Your task to perform on an android device: change notification settings in the gmail app Image 0: 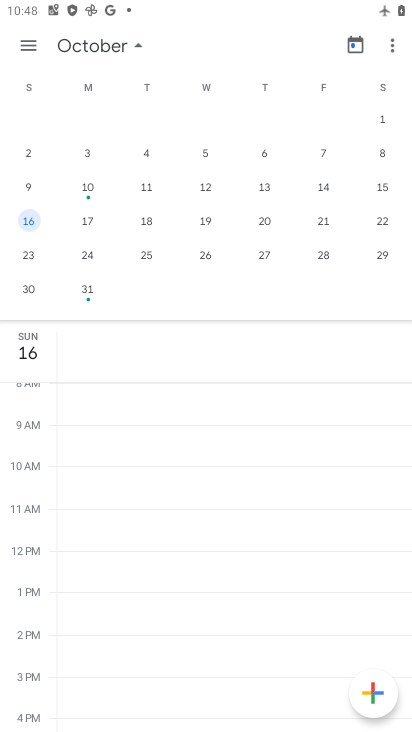
Step 0: press home button
Your task to perform on an android device: change notification settings in the gmail app Image 1: 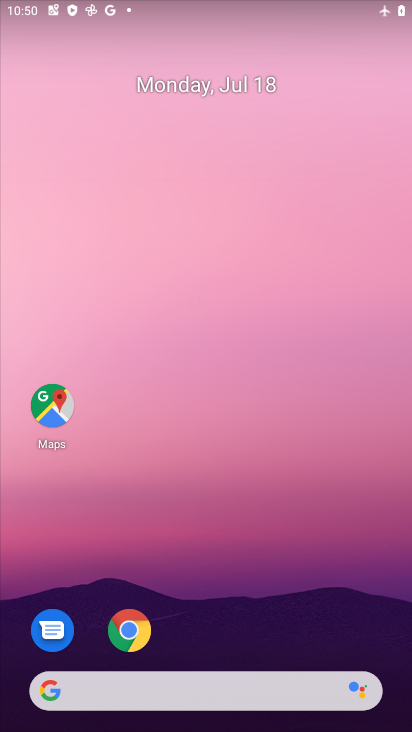
Step 1: drag from (349, 598) to (237, 38)
Your task to perform on an android device: change notification settings in the gmail app Image 2: 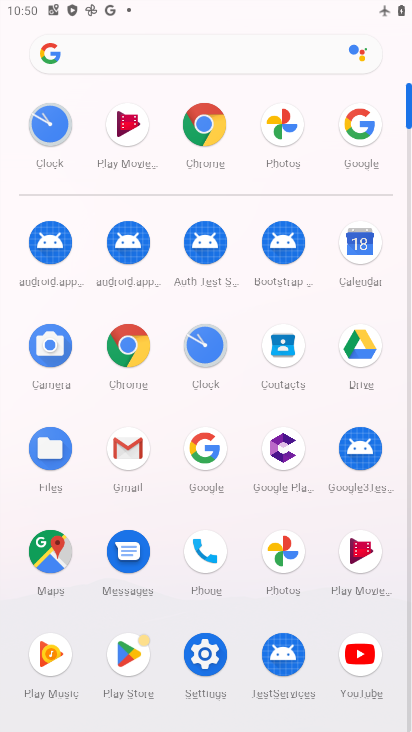
Step 2: click (141, 457)
Your task to perform on an android device: change notification settings in the gmail app Image 3: 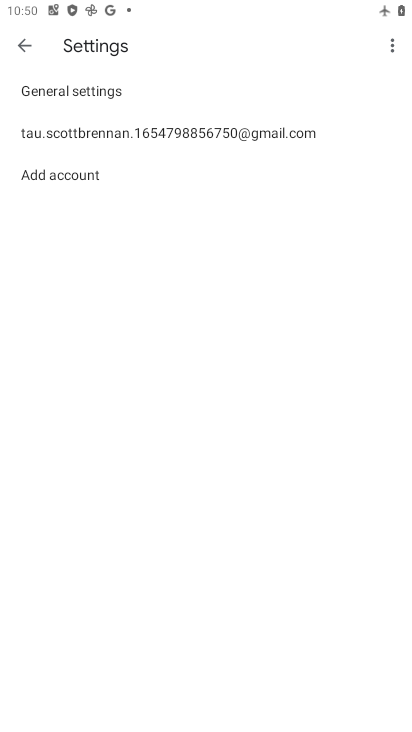
Step 3: click (117, 136)
Your task to perform on an android device: change notification settings in the gmail app Image 4: 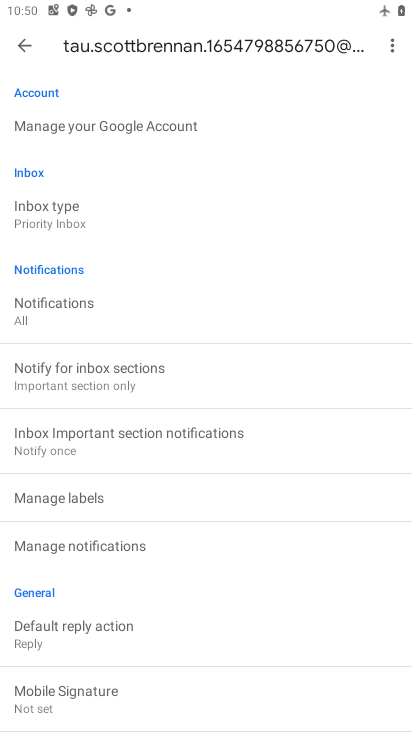
Step 4: click (52, 324)
Your task to perform on an android device: change notification settings in the gmail app Image 5: 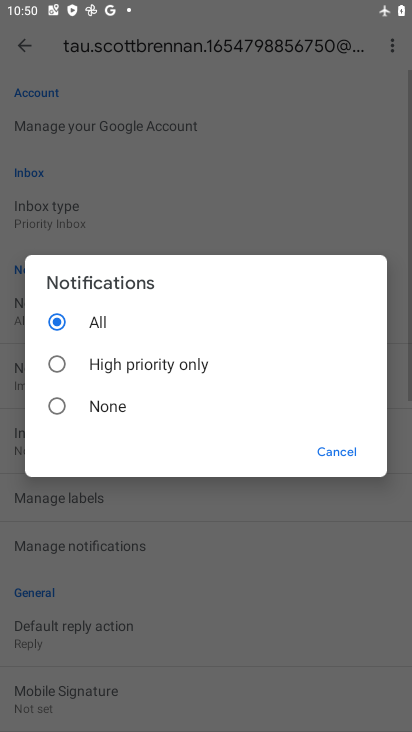
Step 5: click (77, 403)
Your task to perform on an android device: change notification settings in the gmail app Image 6: 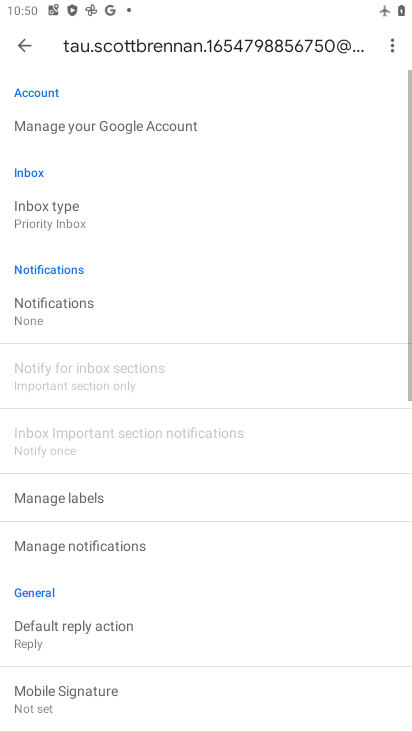
Step 6: task complete